Your task to perform on an android device: open chrome and create a bookmark for the current page Image 0: 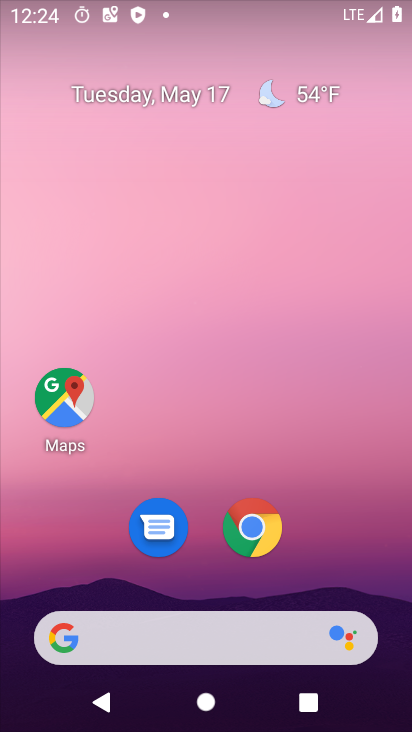
Step 0: drag from (230, 648) to (122, 368)
Your task to perform on an android device: open chrome and create a bookmark for the current page Image 1: 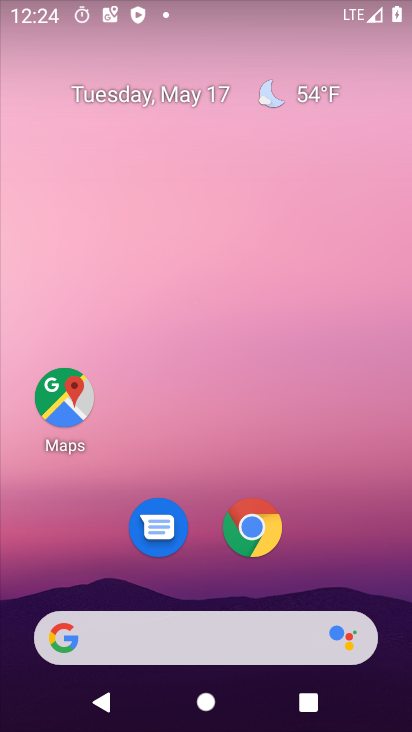
Step 1: drag from (242, 663) to (183, 205)
Your task to perform on an android device: open chrome and create a bookmark for the current page Image 2: 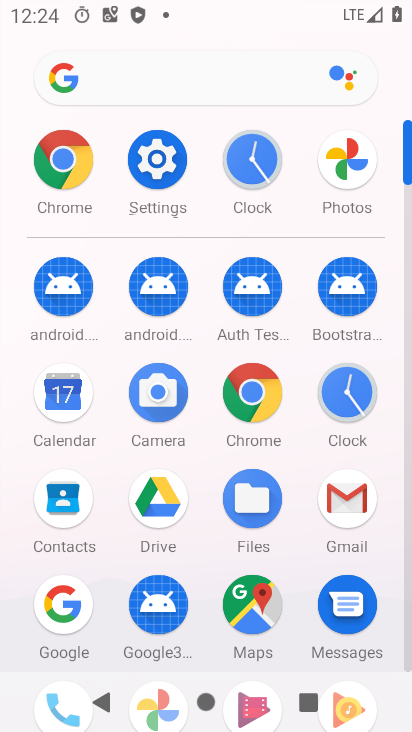
Step 2: click (264, 386)
Your task to perform on an android device: open chrome and create a bookmark for the current page Image 3: 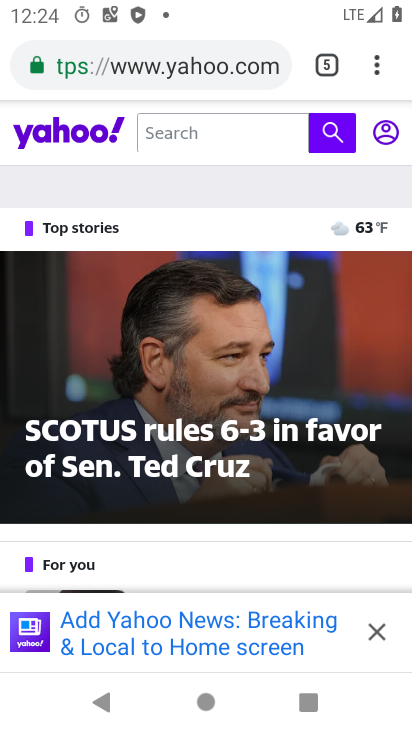
Step 3: click (367, 79)
Your task to perform on an android device: open chrome and create a bookmark for the current page Image 4: 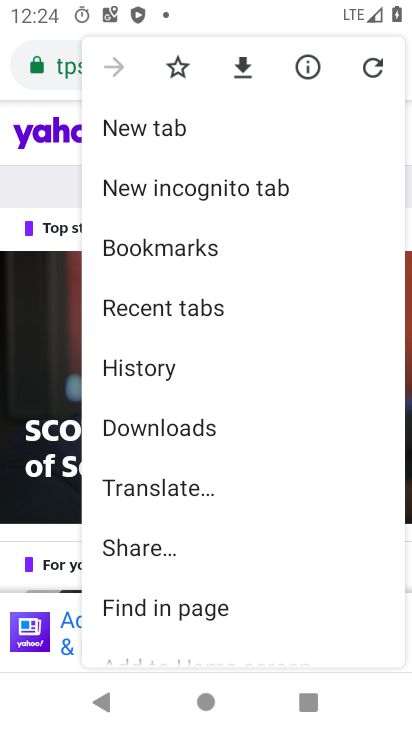
Step 4: drag from (165, 494) to (181, 277)
Your task to perform on an android device: open chrome and create a bookmark for the current page Image 5: 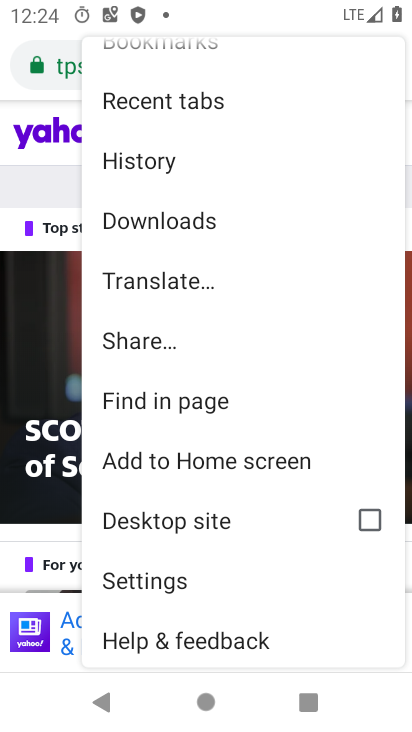
Step 5: click (166, 574)
Your task to perform on an android device: open chrome and create a bookmark for the current page Image 6: 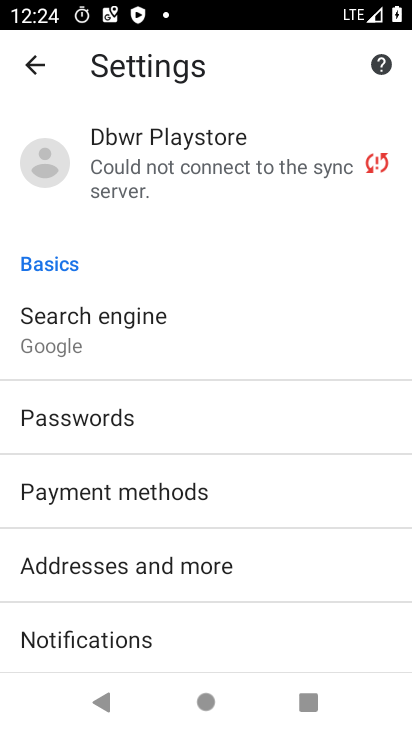
Step 6: click (33, 74)
Your task to perform on an android device: open chrome and create a bookmark for the current page Image 7: 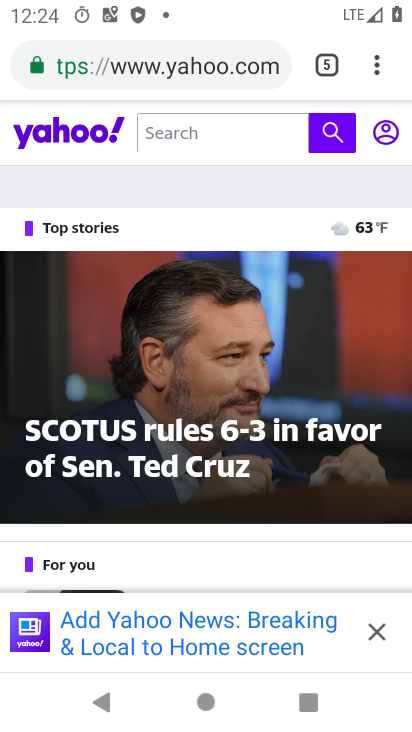
Step 7: click (375, 67)
Your task to perform on an android device: open chrome and create a bookmark for the current page Image 8: 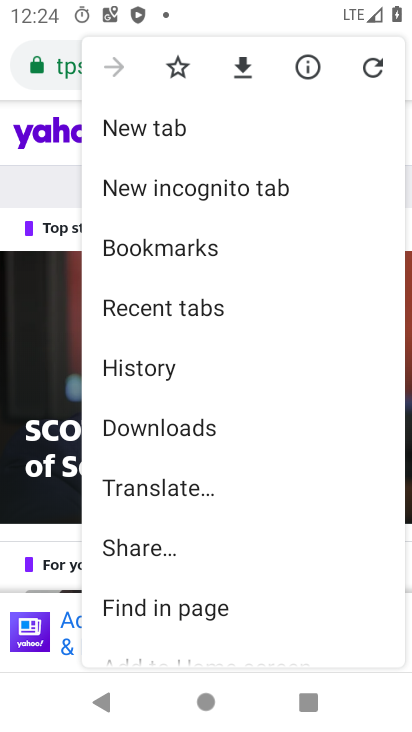
Step 8: click (158, 264)
Your task to perform on an android device: open chrome and create a bookmark for the current page Image 9: 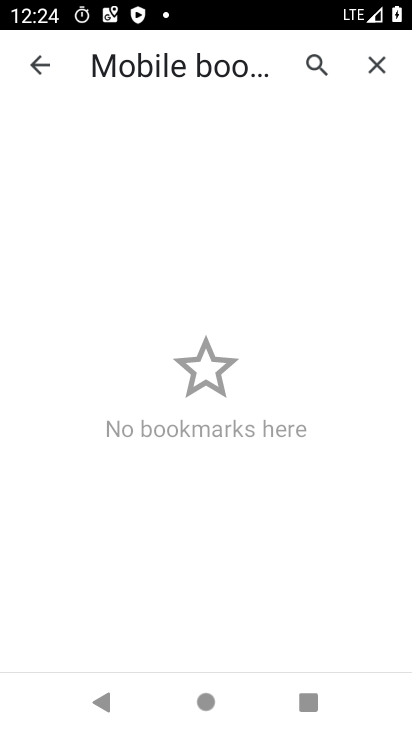
Step 9: task complete